Your task to perform on an android device: change notifications settings Image 0: 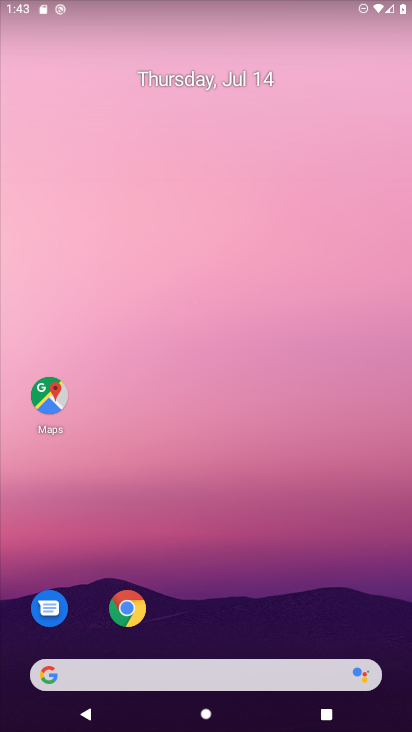
Step 0: drag from (375, 608) to (318, 134)
Your task to perform on an android device: change notifications settings Image 1: 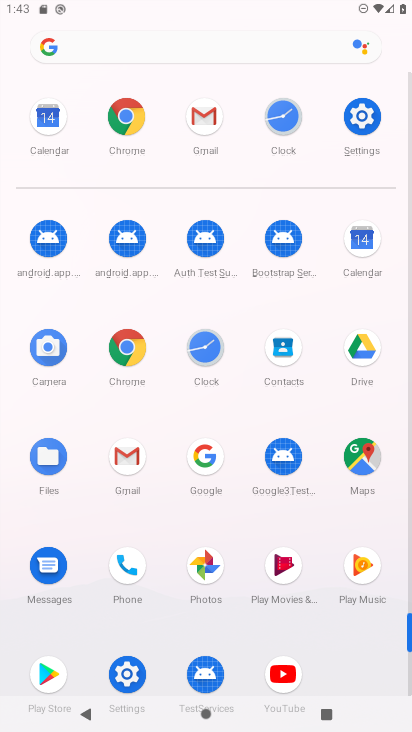
Step 1: click (127, 673)
Your task to perform on an android device: change notifications settings Image 2: 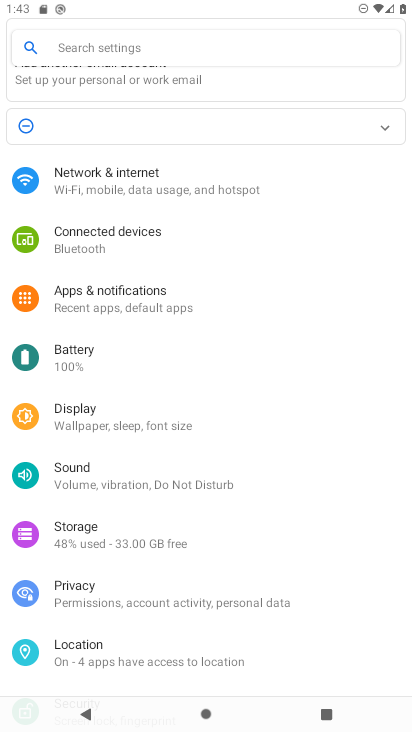
Step 2: click (100, 286)
Your task to perform on an android device: change notifications settings Image 3: 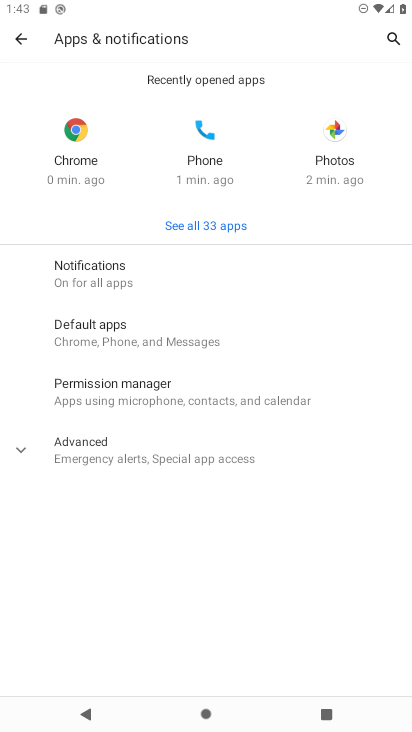
Step 3: click (74, 269)
Your task to perform on an android device: change notifications settings Image 4: 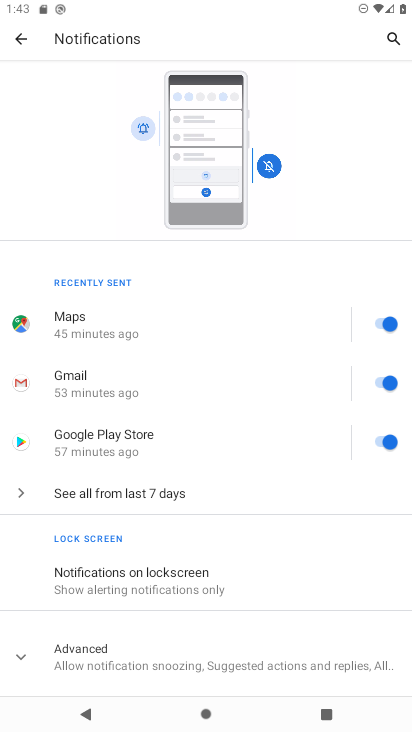
Step 4: drag from (274, 630) to (261, 319)
Your task to perform on an android device: change notifications settings Image 5: 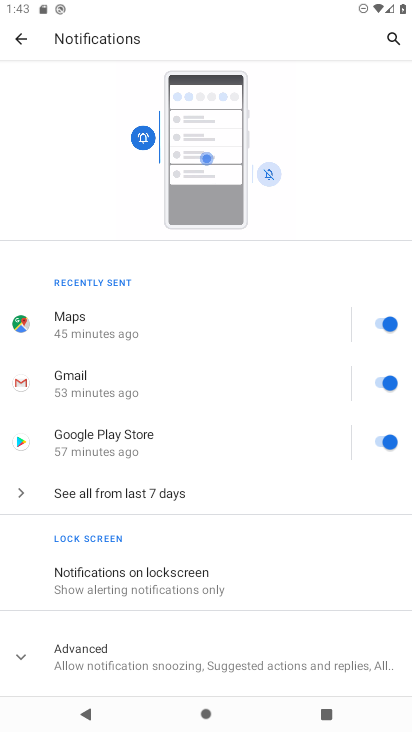
Step 5: click (13, 659)
Your task to perform on an android device: change notifications settings Image 6: 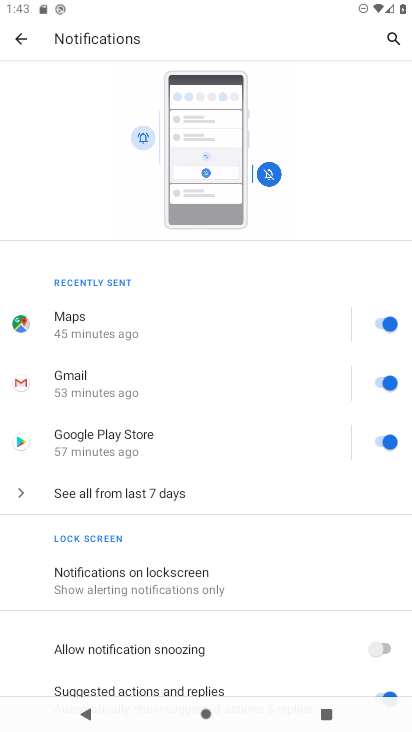
Step 6: drag from (309, 672) to (290, 297)
Your task to perform on an android device: change notifications settings Image 7: 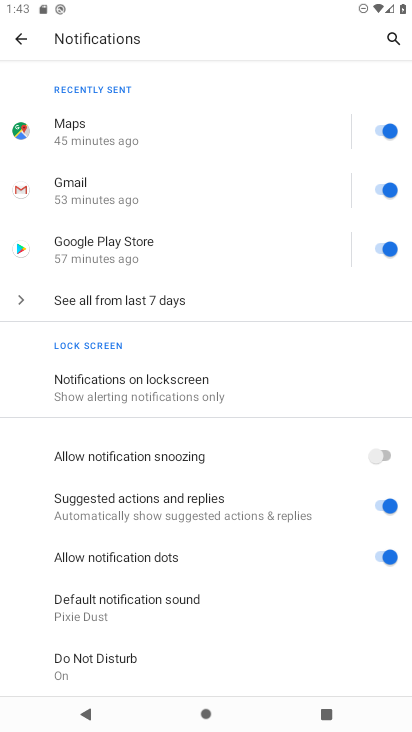
Step 7: click (378, 559)
Your task to perform on an android device: change notifications settings Image 8: 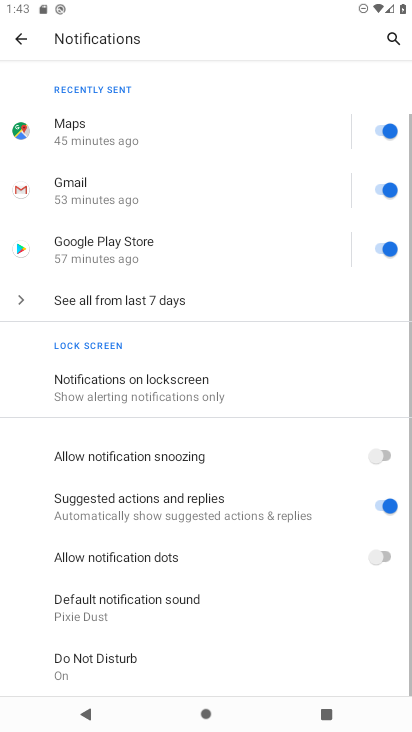
Step 8: click (386, 452)
Your task to perform on an android device: change notifications settings Image 9: 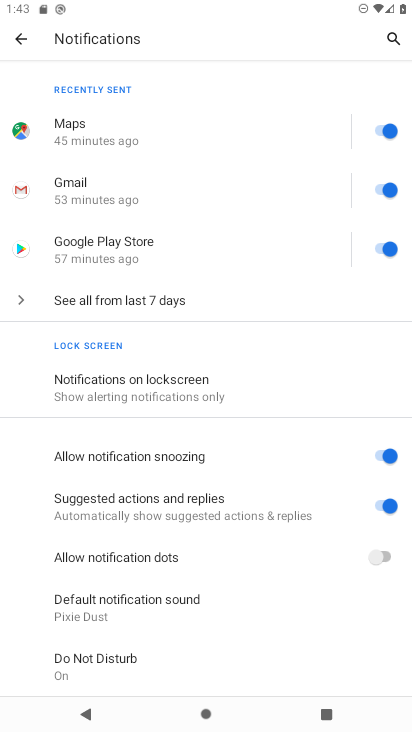
Step 9: task complete